Your task to perform on an android device: When is my next meeting? Image 0: 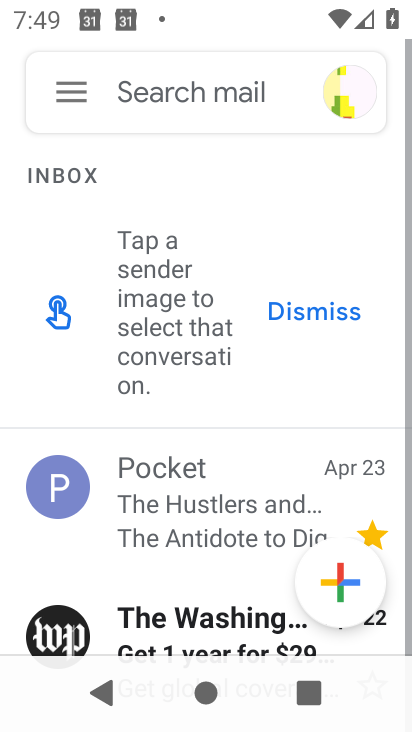
Step 0: press home button
Your task to perform on an android device: When is my next meeting? Image 1: 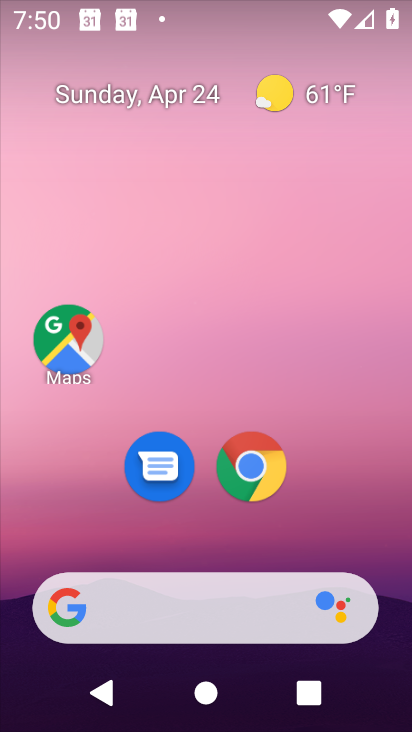
Step 1: drag from (189, 528) to (406, 305)
Your task to perform on an android device: When is my next meeting? Image 2: 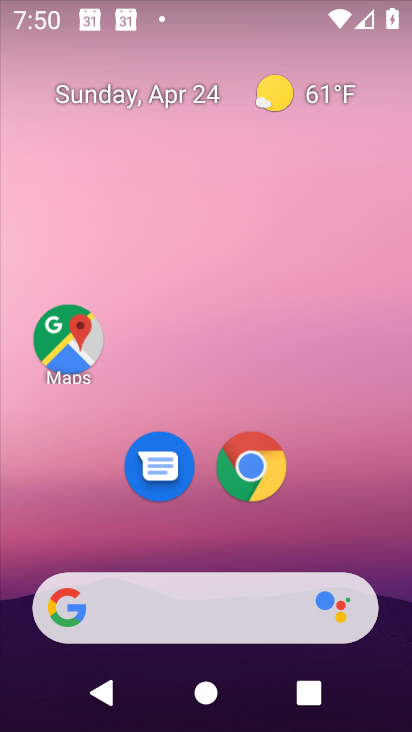
Step 2: click (54, 458)
Your task to perform on an android device: When is my next meeting? Image 3: 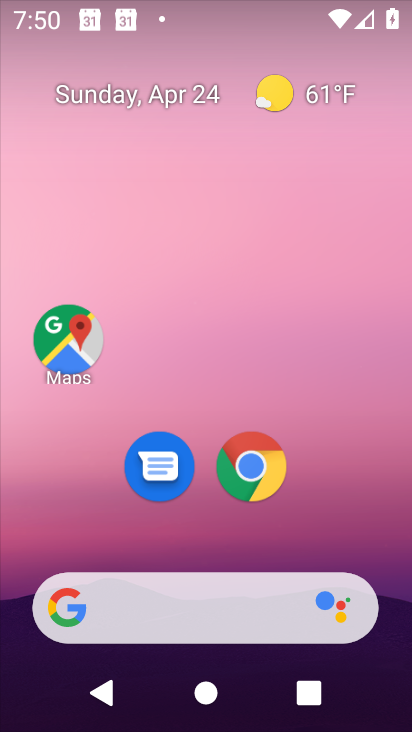
Step 3: drag from (211, 558) to (266, 3)
Your task to perform on an android device: When is my next meeting? Image 4: 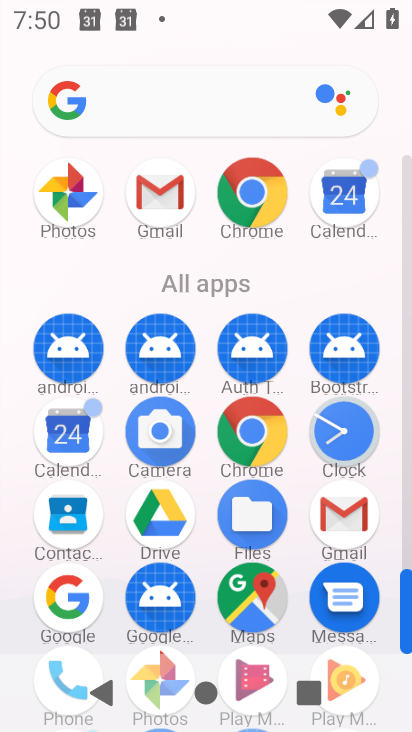
Step 4: click (56, 431)
Your task to perform on an android device: When is my next meeting? Image 5: 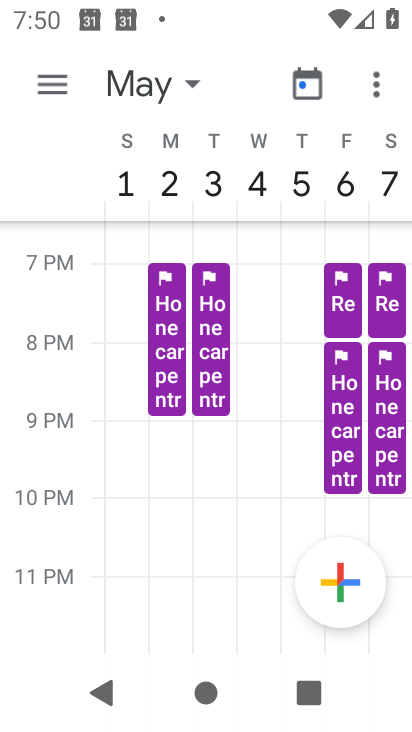
Step 5: click (56, 432)
Your task to perform on an android device: When is my next meeting? Image 6: 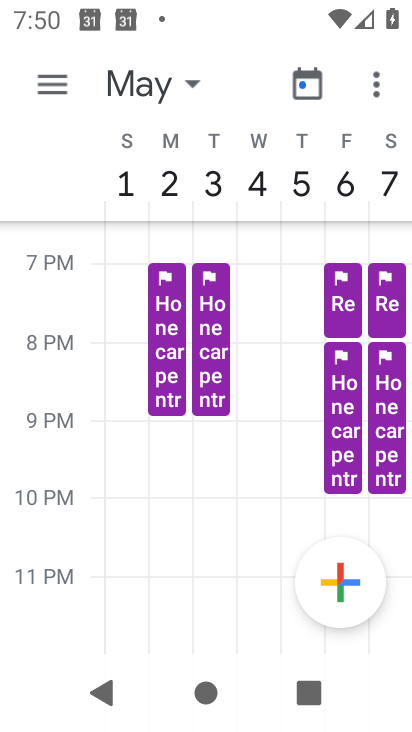
Step 6: click (45, 78)
Your task to perform on an android device: When is my next meeting? Image 7: 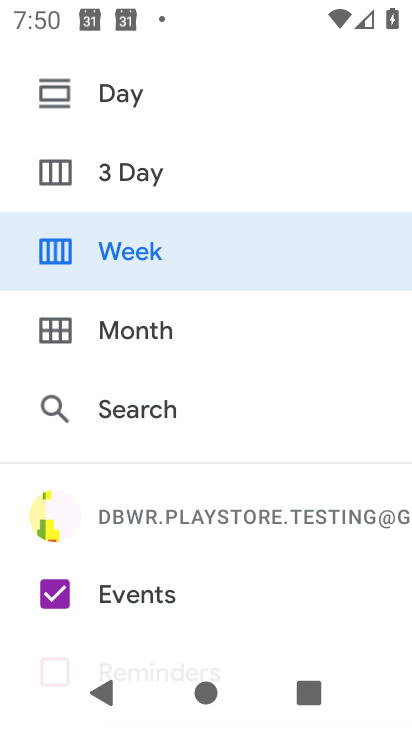
Step 7: drag from (89, 144) to (102, 635)
Your task to perform on an android device: When is my next meeting? Image 8: 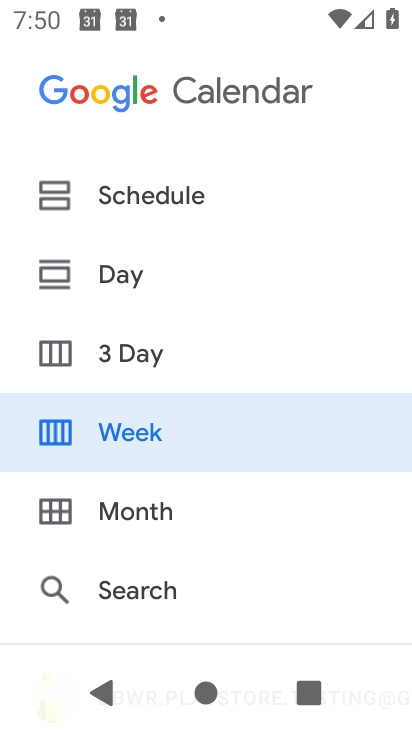
Step 8: click (137, 210)
Your task to perform on an android device: When is my next meeting? Image 9: 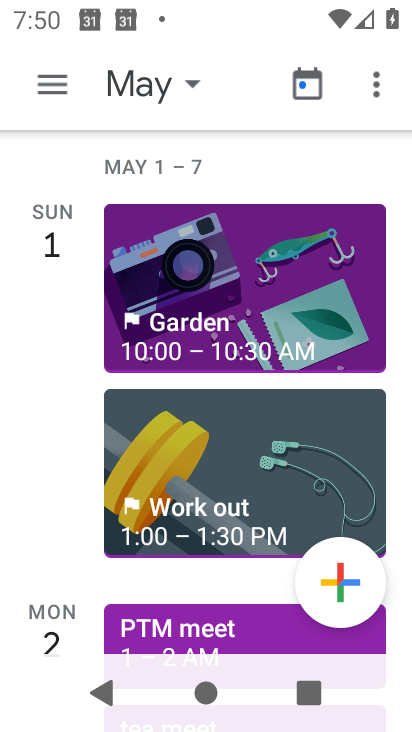
Step 9: drag from (158, 535) to (200, 192)
Your task to perform on an android device: When is my next meeting? Image 10: 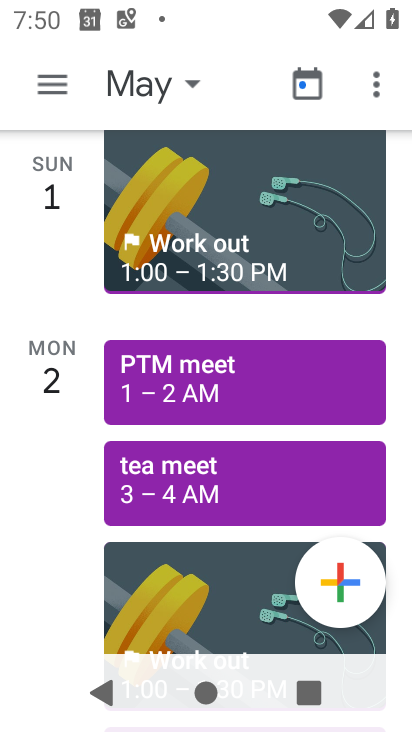
Step 10: click (219, 382)
Your task to perform on an android device: When is my next meeting? Image 11: 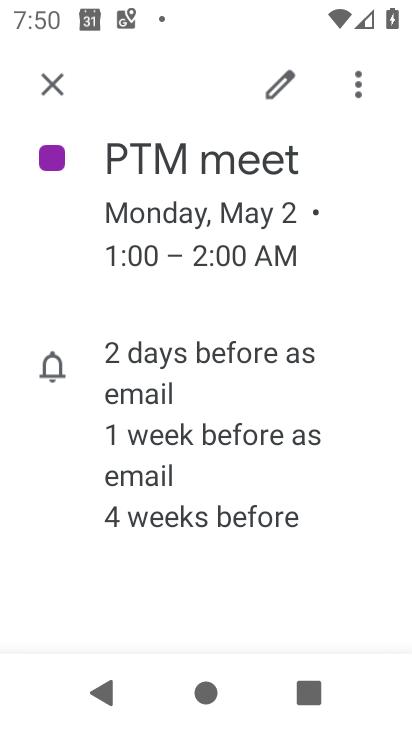
Step 11: task complete